Your task to perform on an android device: toggle javascript in the chrome app Image 0: 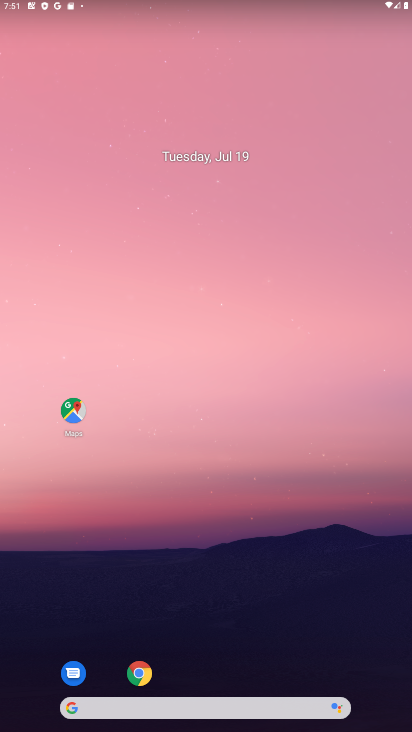
Step 0: click (138, 658)
Your task to perform on an android device: toggle javascript in the chrome app Image 1: 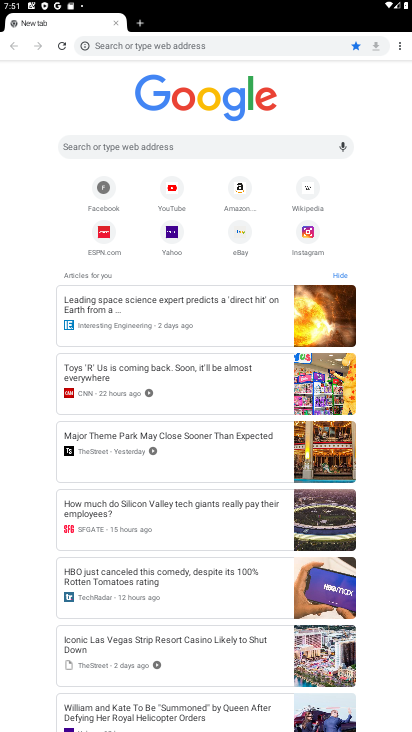
Step 1: click (401, 42)
Your task to perform on an android device: toggle javascript in the chrome app Image 2: 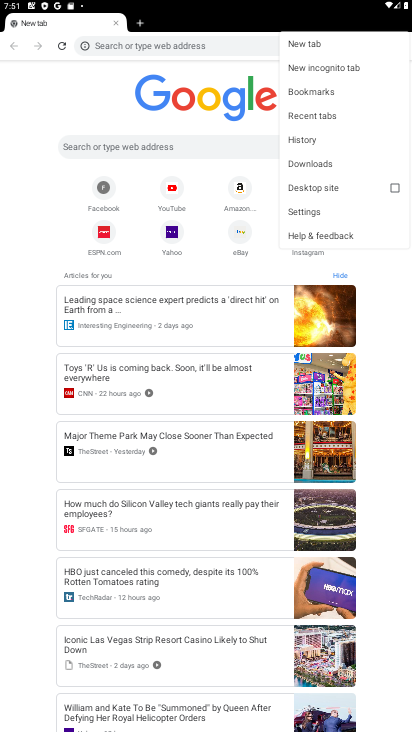
Step 2: click (303, 201)
Your task to perform on an android device: toggle javascript in the chrome app Image 3: 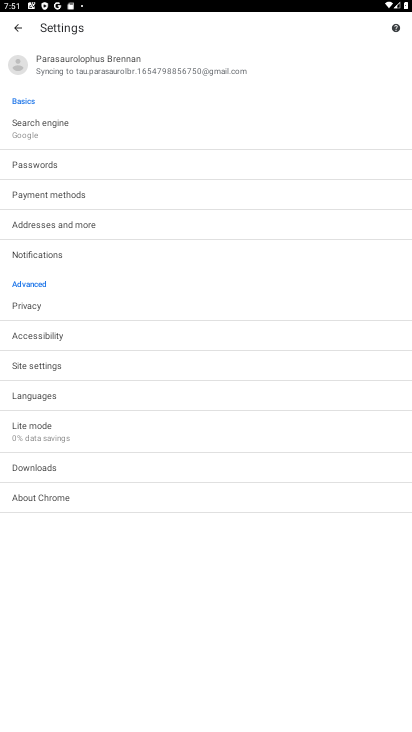
Step 3: click (125, 363)
Your task to perform on an android device: toggle javascript in the chrome app Image 4: 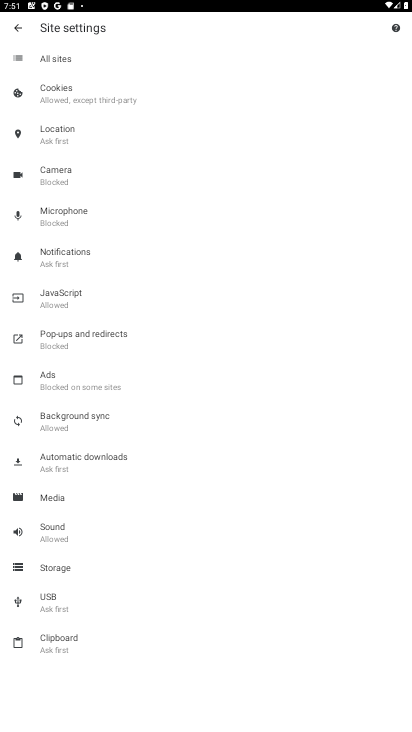
Step 4: click (73, 286)
Your task to perform on an android device: toggle javascript in the chrome app Image 5: 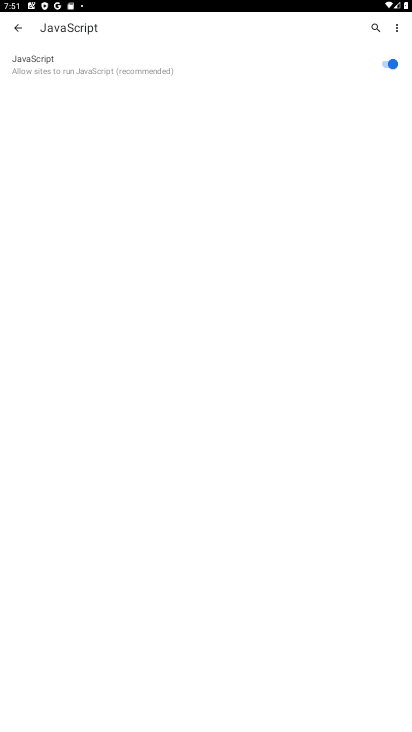
Step 5: click (361, 58)
Your task to perform on an android device: toggle javascript in the chrome app Image 6: 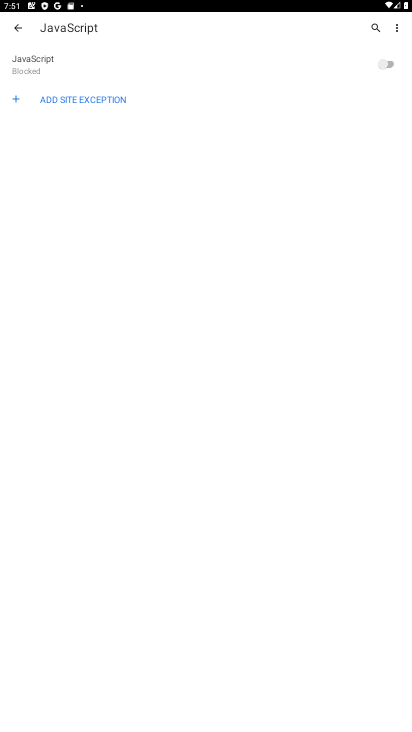
Step 6: task complete